Your task to perform on an android device: Go to CNN.com Image 0: 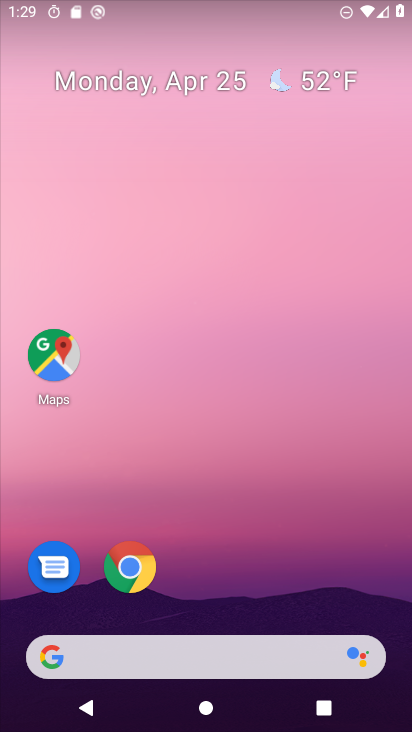
Step 0: click (257, 665)
Your task to perform on an android device: Go to CNN.com Image 1: 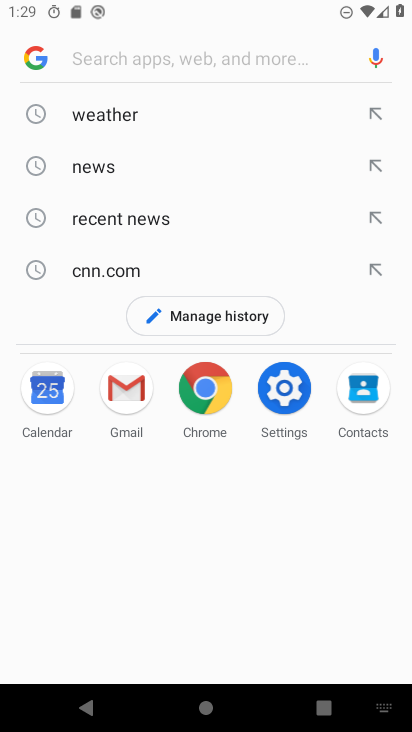
Step 1: type "cnn.com"
Your task to perform on an android device: Go to CNN.com Image 2: 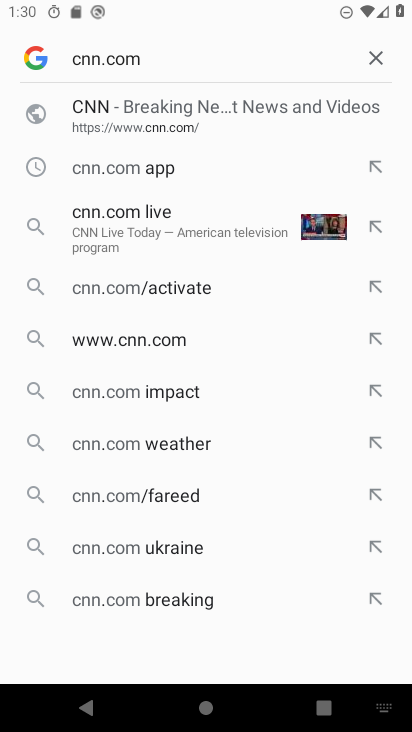
Step 2: click (169, 103)
Your task to perform on an android device: Go to CNN.com Image 3: 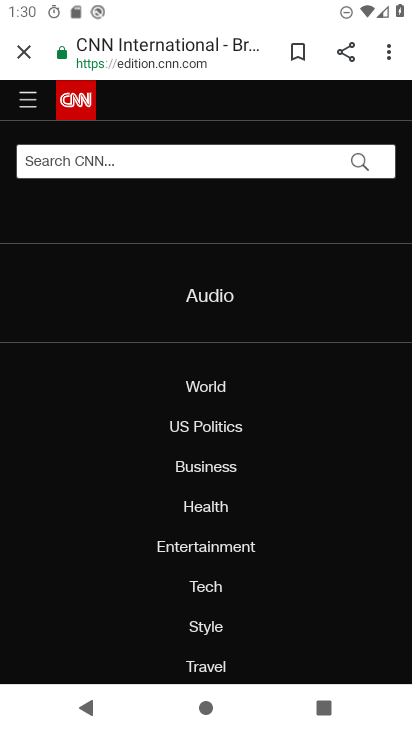
Step 3: task complete